Your task to perform on an android device: Open Google Maps Image 0: 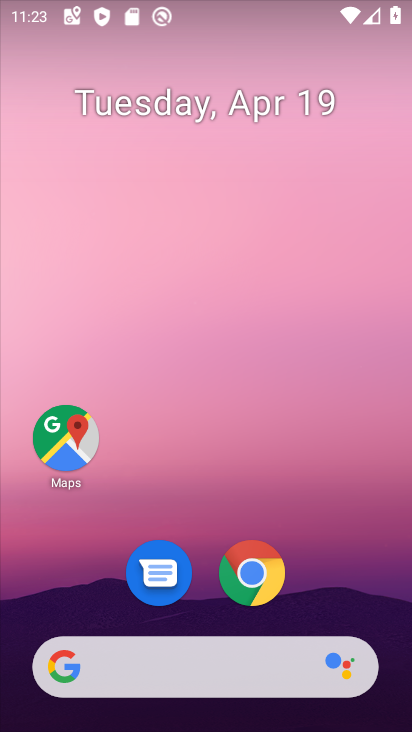
Step 0: click (70, 447)
Your task to perform on an android device: Open Google Maps Image 1: 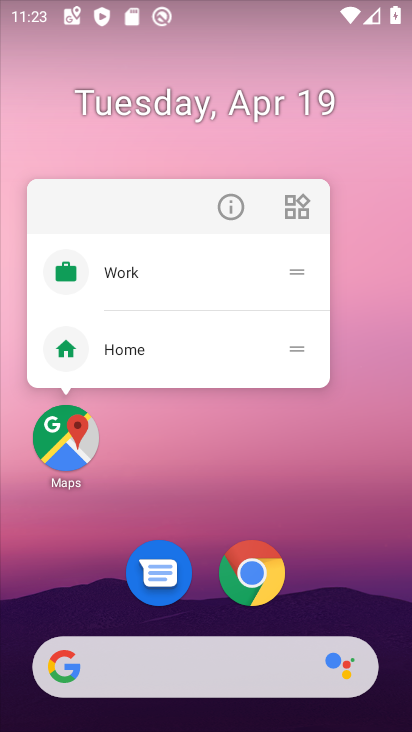
Step 1: click (55, 448)
Your task to perform on an android device: Open Google Maps Image 2: 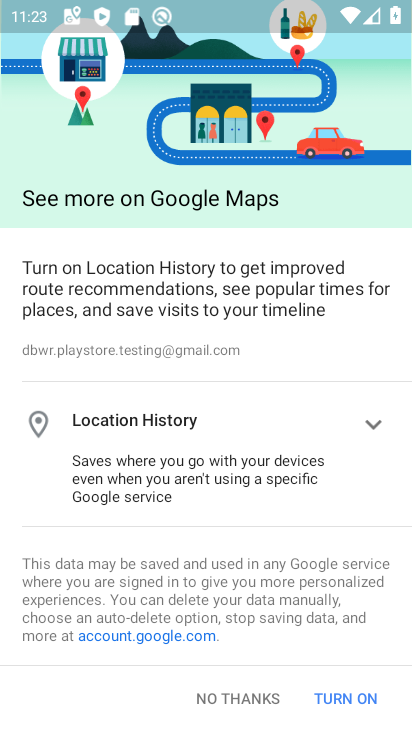
Step 2: task complete